Your task to perform on an android device: turn on notifications settings in the gmail app Image 0: 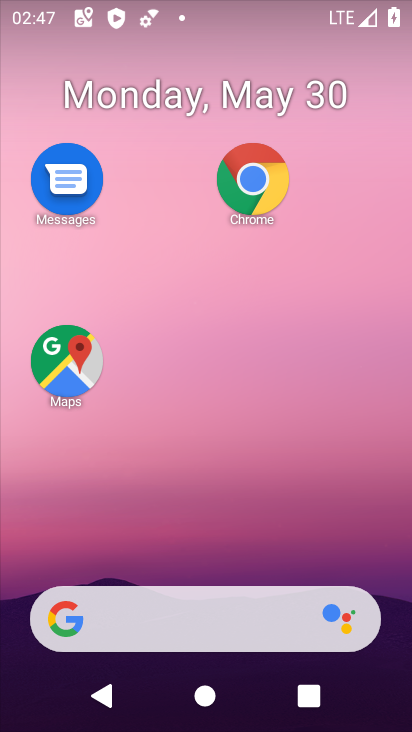
Step 0: drag from (178, 530) to (128, 19)
Your task to perform on an android device: turn on notifications settings in the gmail app Image 1: 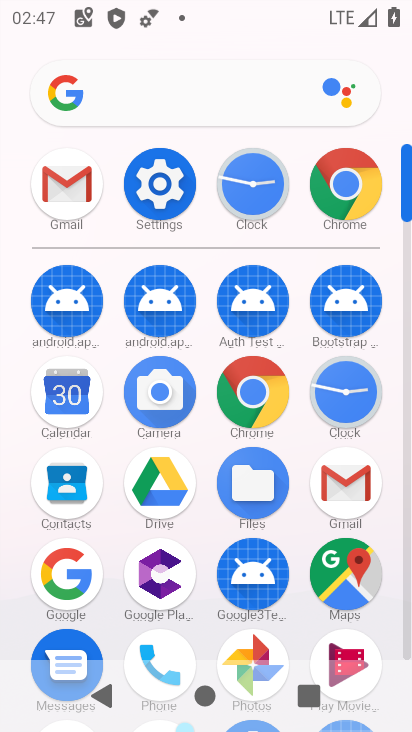
Step 1: click (346, 483)
Your task to perform on an android device: turn on notifications settings in the gmail app Image 2: 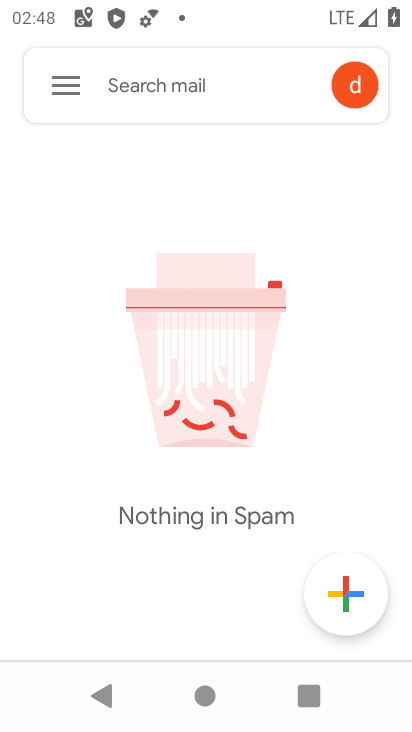
Step 2: click (67, 84)
Your task to perform on an android device: turn on notifications settings in the gmail app Image 3: 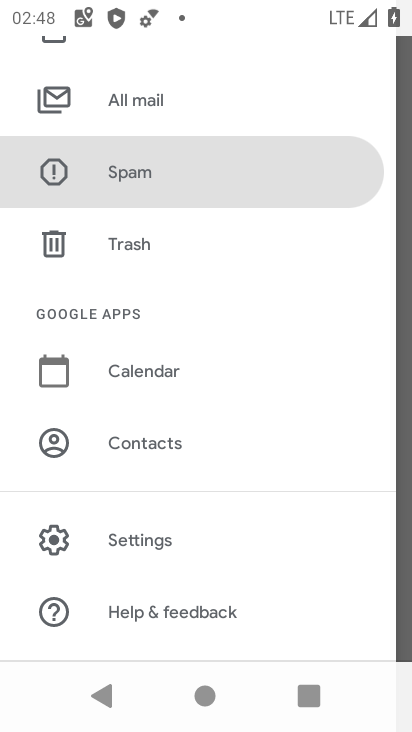
Step 3: click (153, 542)
Your task to perform on an android device: turn on notifications settings in the gmail app Image 4: 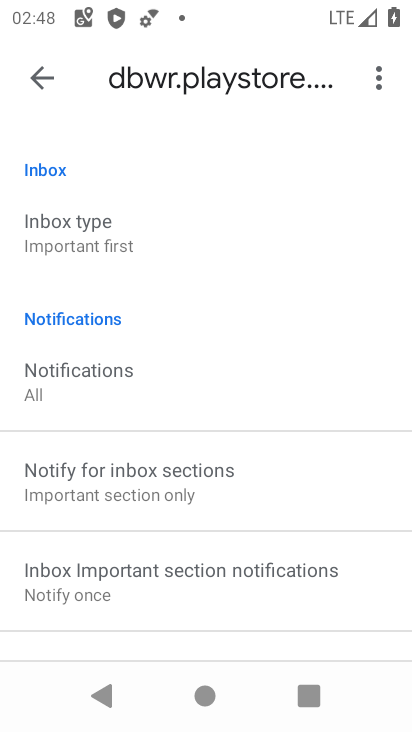
Step 4: click (153, 375)
Your task to perform on an android device: turn on notifications settings in the gmail app Image 5: 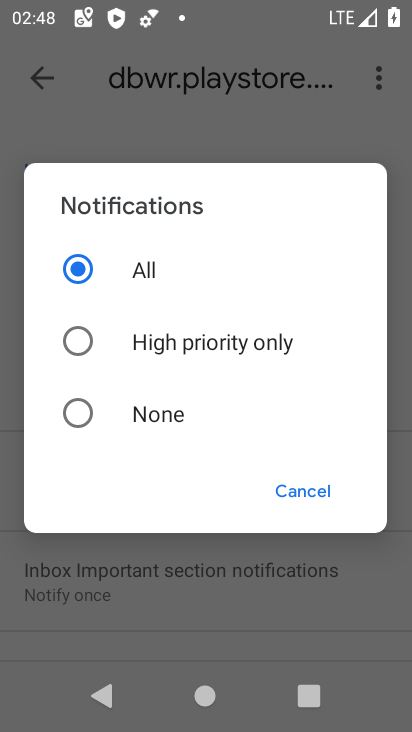
Step 5: task complete